Your task to perform on an android device: Show the shopping cart on bestbuy.com. Search for "razer kraken" on bestbuy.com, select the first entry, add it to the cart, then select checkout. Image 0: 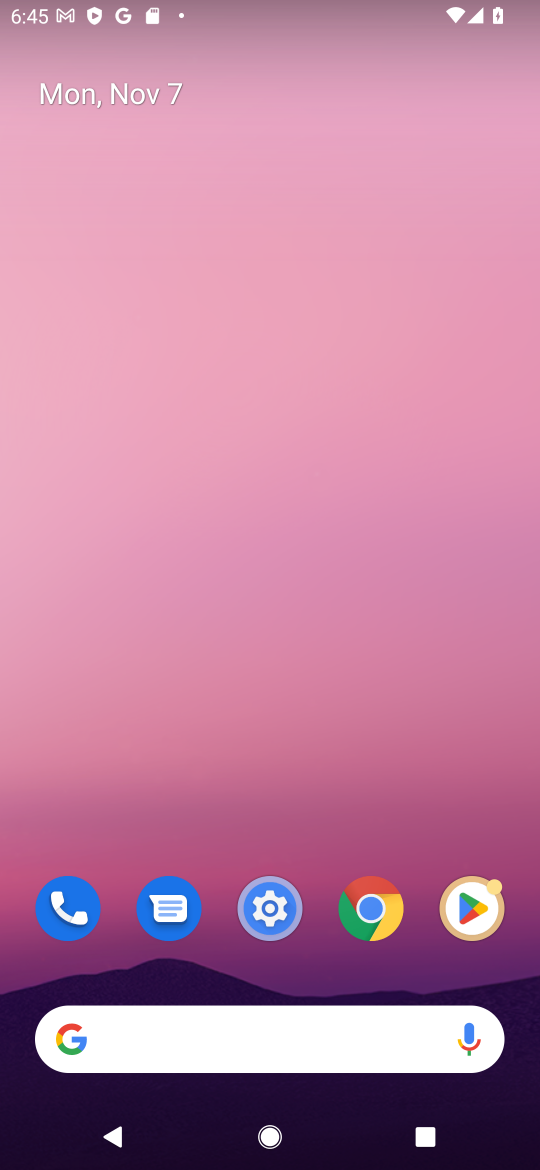
Step 0: click (389, 1069)
Your task to perform on an android device: Show the shopping cart on bestbuy.com. Search for "razer kraken" on bestbuy.com, select the first entry, add it to the cart, then select checkout. Image 1: 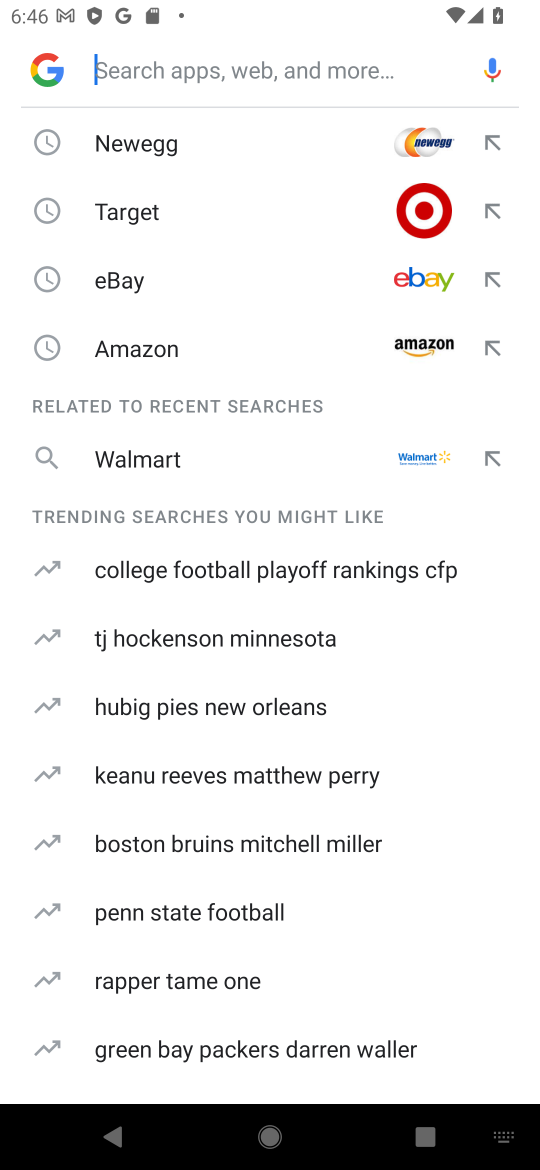
Step 1: type "bestbuy"
Your task to perform on an android device: Show the shopping cart on bestbuy.com. Search for "razer kraken" on bestbuy.com, select the first entry, add it to the cart, then select checkout. Image 2: 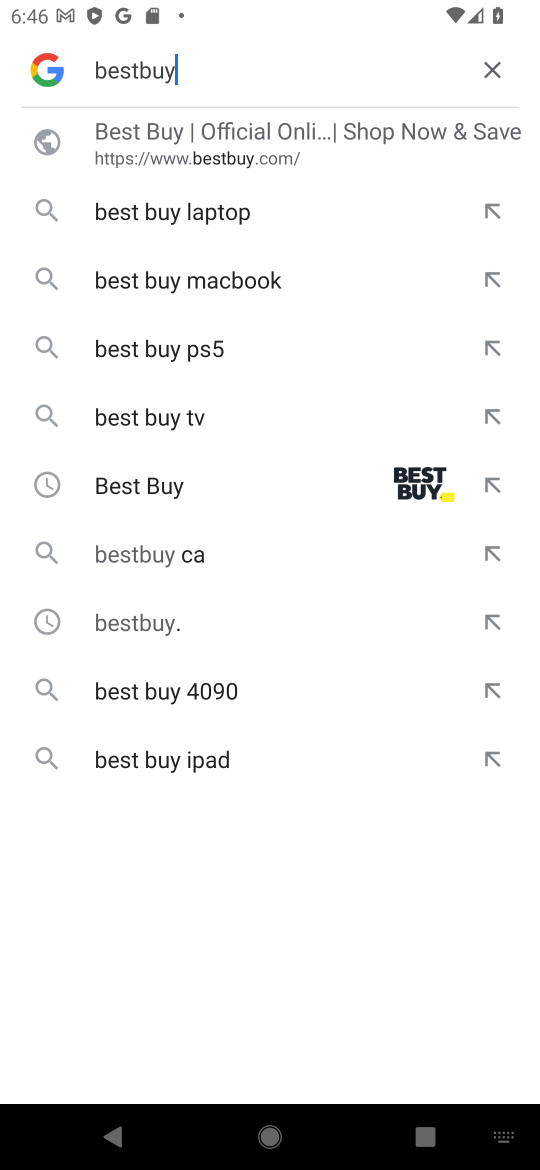
Step 2: click (306, 486)
Your task to perform on an android device: Show the shopping cart on bestbuy.com. Search for "razer kraken" on bestbuy.com, select the first entry, add it to the cart, then select checkout. Image 3: 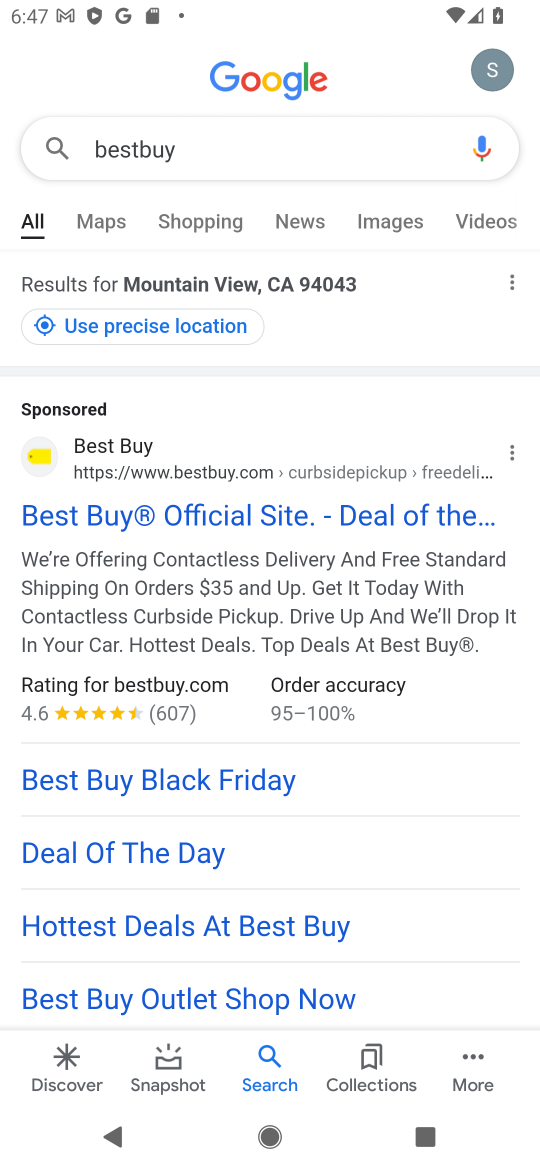
Step 3: click (157, 539)
Your task to perform on an android device: Show the shopping cart on bestbuy.com. Search for "razer kraken" on bestbuy.com, select the first entry, add it to the cart, then select checkout. Image 4: 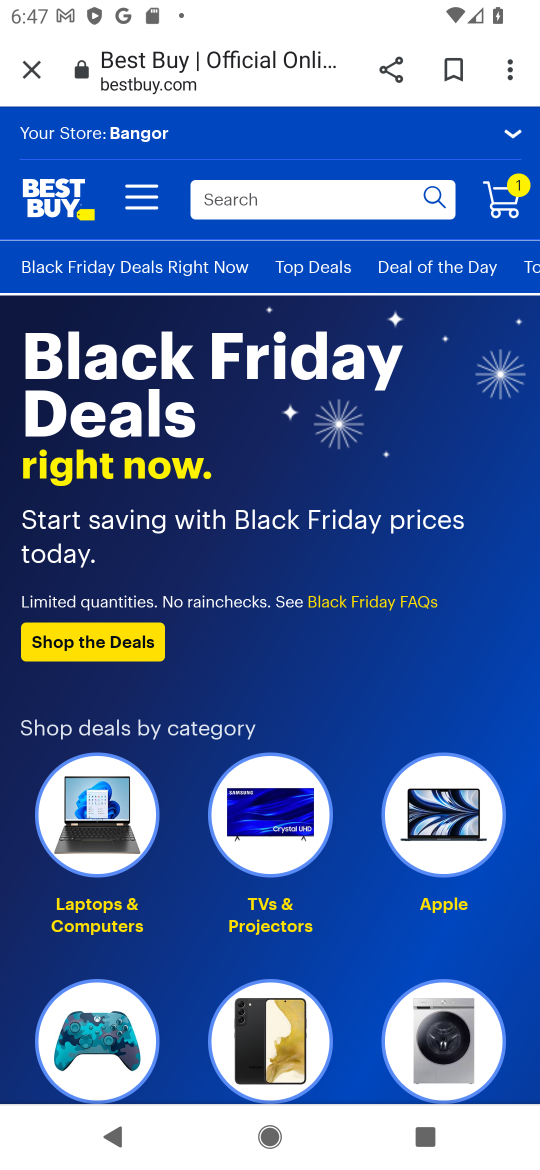
Step 4: task complete